Your task to perform on an android device: Turn on the flashlight Image 0: 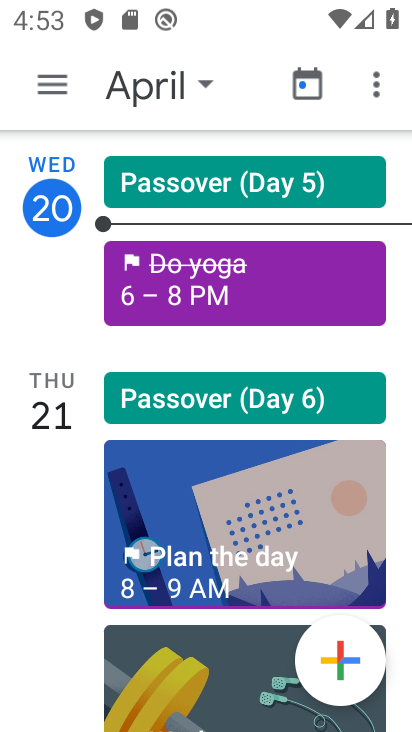
Step 0: drag from (275, 20) to (288, 427)
Your task to perform on an android device: Turn on the flashlight Image 1: 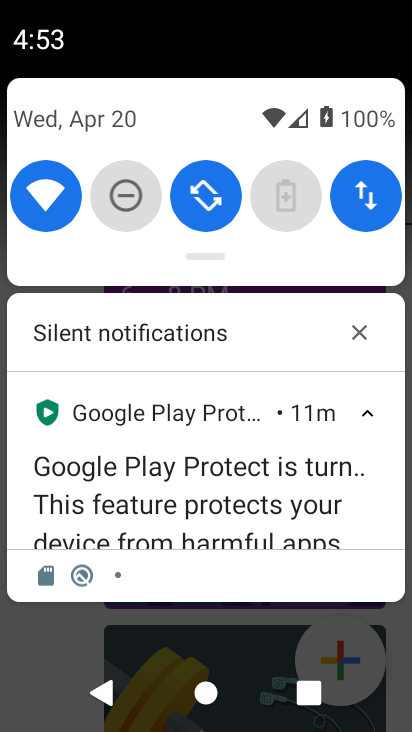
Step 1: task complete